Your task to perform on an android device: empty trash in the gmail app Image 0: 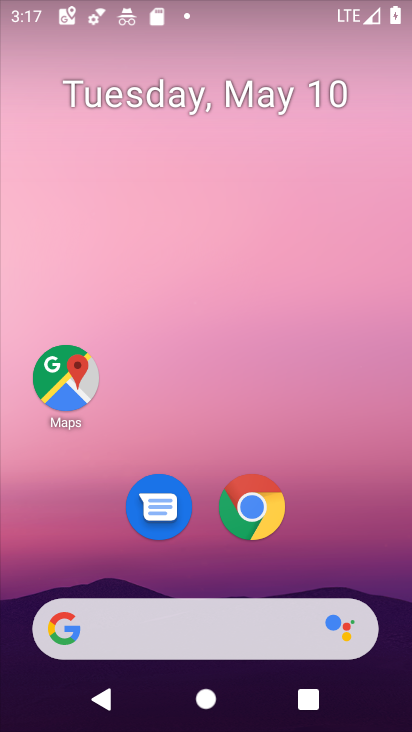
Step 0: drag from (181, 546) to (223, 269)
Your task to perform on an android device: empty trash in the gmail app Image 1: 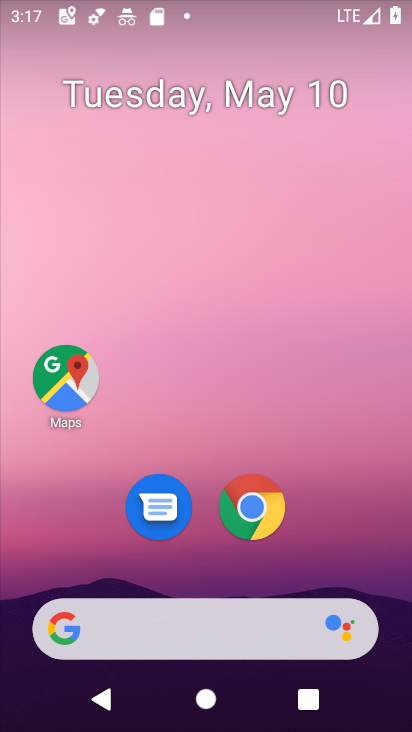
Step 1: drag from (197, 572) to (242, 165)
Your task to perform on an android device: empty trash in the gmail app Image 2: 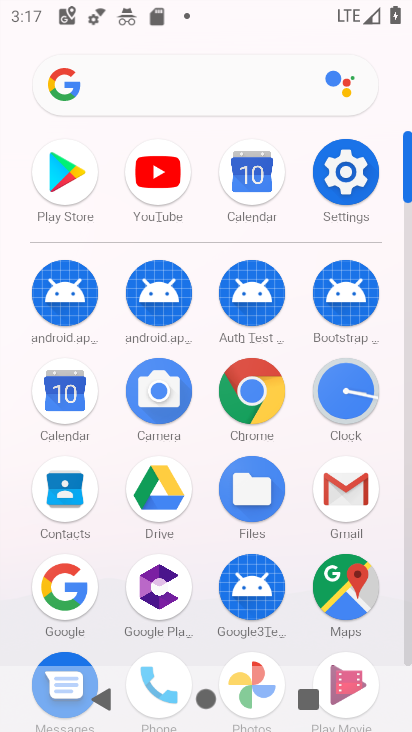
Step 2: click (349, 490)
Your task to perform on an android device: empty trash in the gmail app Image 3: 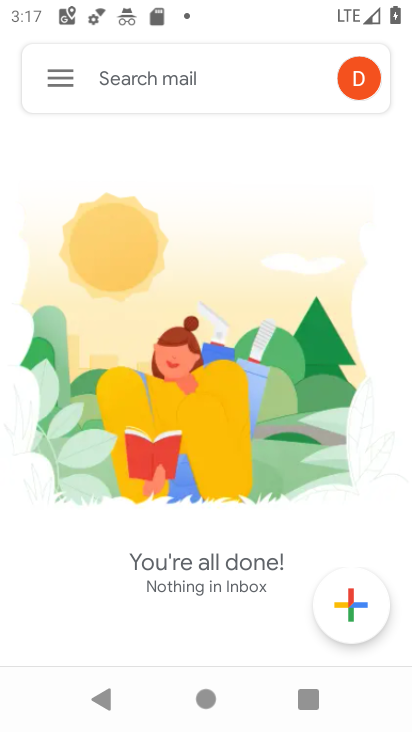
Step 3: click (69, 75)
Your task to perform on an android device: empty trash in the gmail app Image 4: 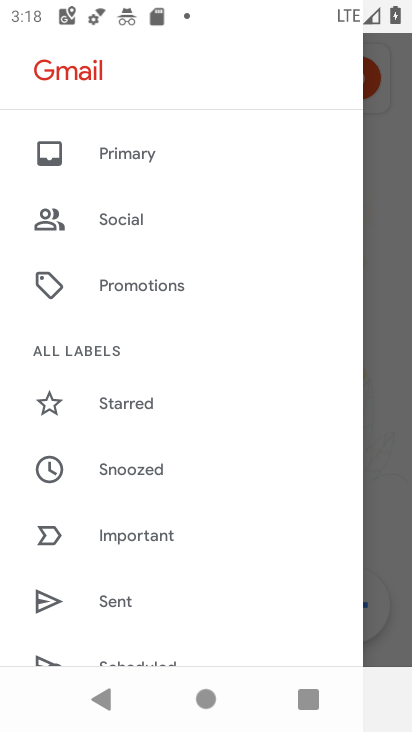
Step 4: drag from (169, 204) to (166, 557)
Your task to perform on an android device: empty trash in the gmail app Image 5: 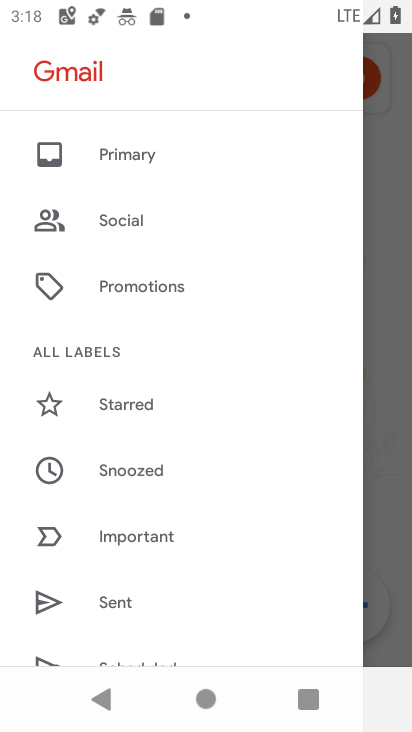
Step 5: drag from (155, 567) to (189, 103)
Your task to perform on an android device: empty trash in the gmail app Image 6: 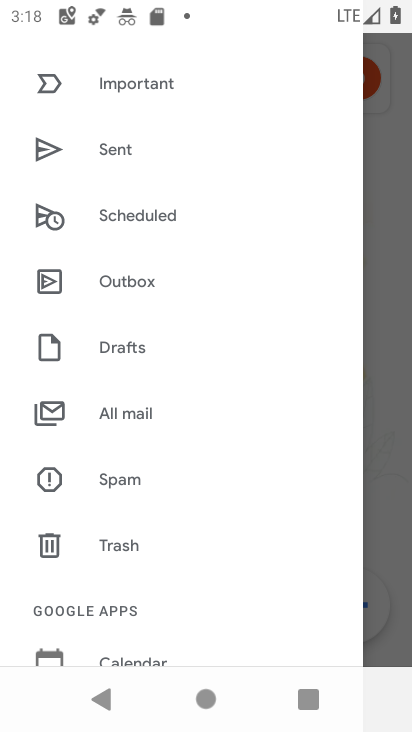
Step 6: click (127, 546)
Your task to perform on an android device: empty trash in the gmail app Image 7: 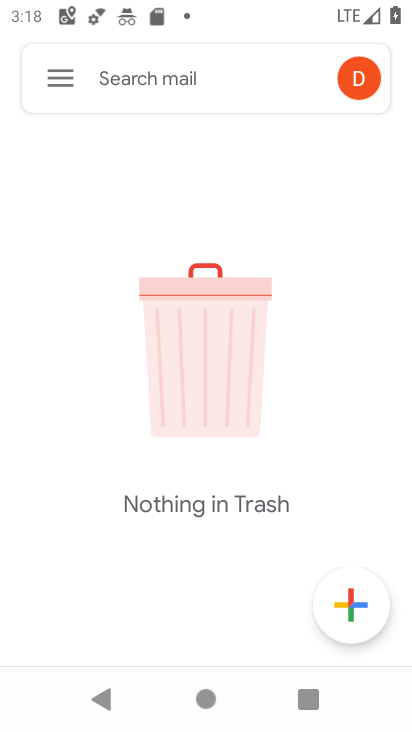
Step 7: task complete